Your task to perform on an android device: Open notification settings Image 0: 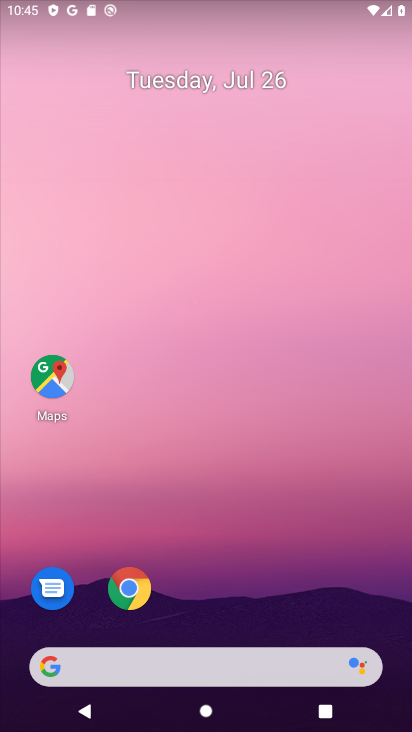
Step 0: drag from (203, 626) to (256, 106)
Your task to perform on an android device: Open notification settings Image 1: 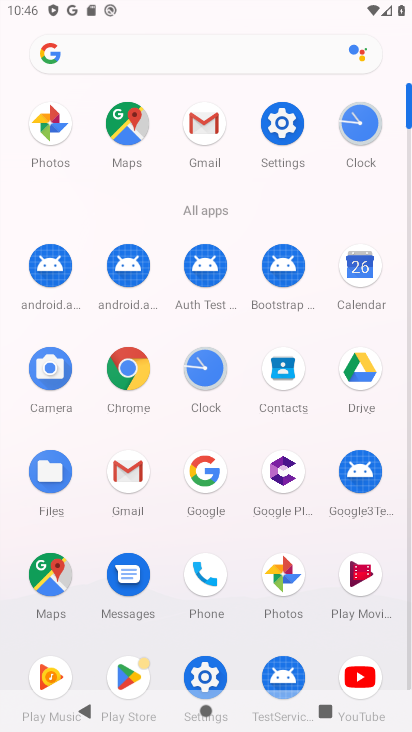
Step 1: click (281, 114)
Your task to perform on an android device: Open notification settings Image 2: 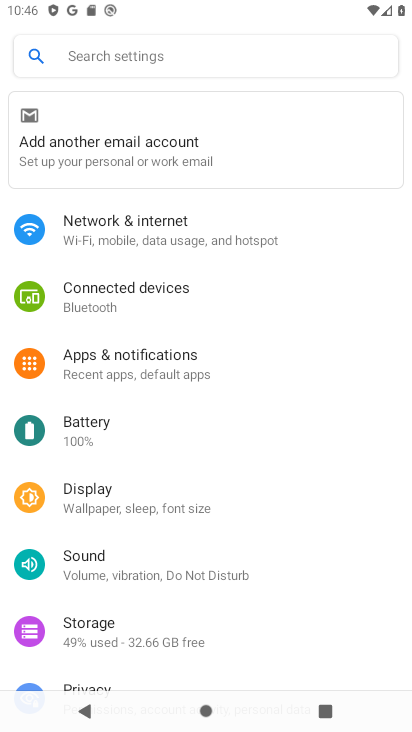
Step 2: click (185, 361)
Your task to perform on an android device: Open notification settings Image 3: 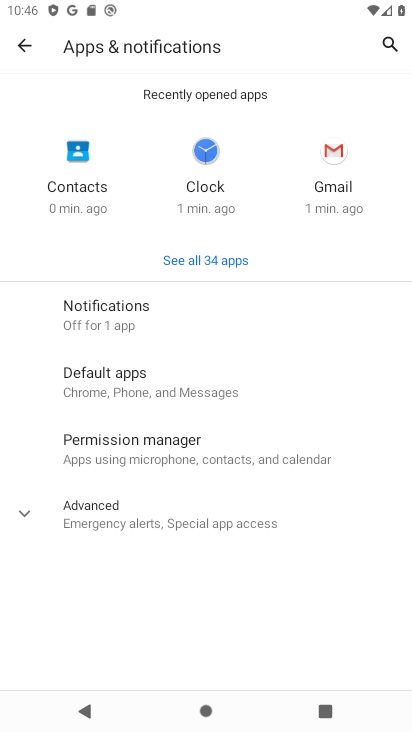
Step 3: click (158, 306)
Your task to perform on an android device: Open notification settings Image 4: 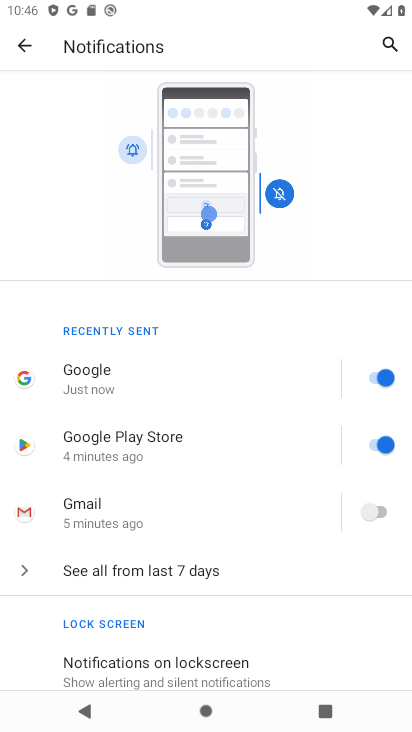
Step 4: drag from (267, 638) to (290, 177)
Your task to perform on an android device: Open notification settings Image 5: 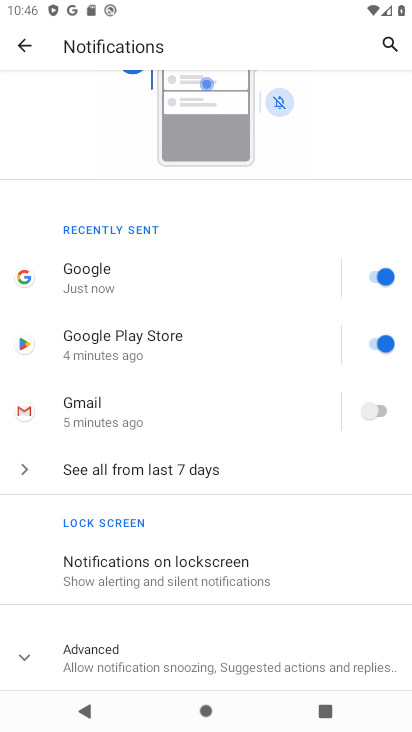
Step 5: click (27, 651)
Your task to perform on an android device: Open notification settings Image 6: 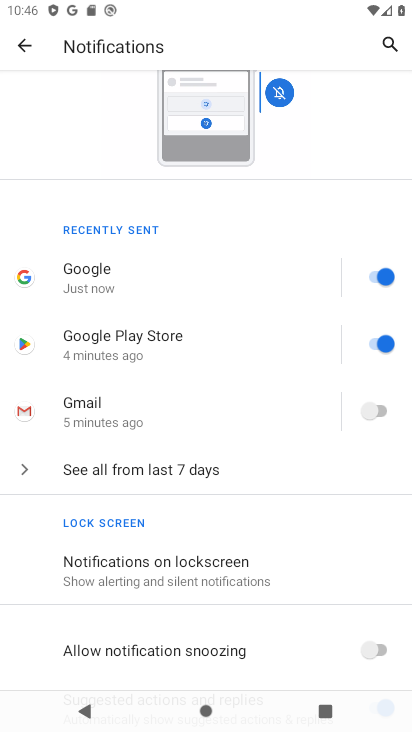
Step 6: task complete